Your task to perform on an android device: turn smart compose on in the gmail app Image 0: 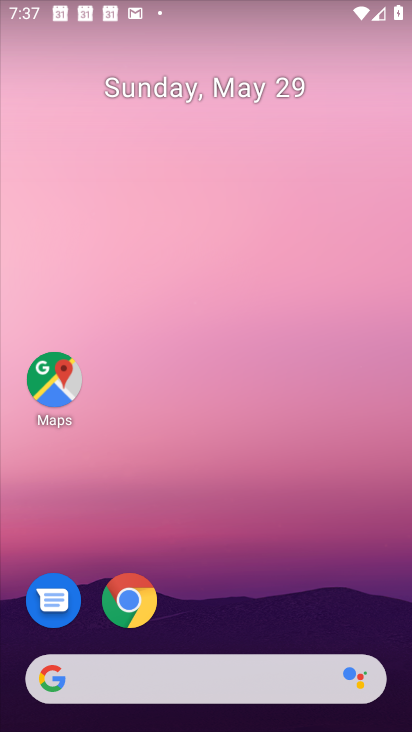
Step 0: drag from (341, 561) to (298, 208)
Your task to perform on an android device: turn smart compose on in the gmail app Image 1: 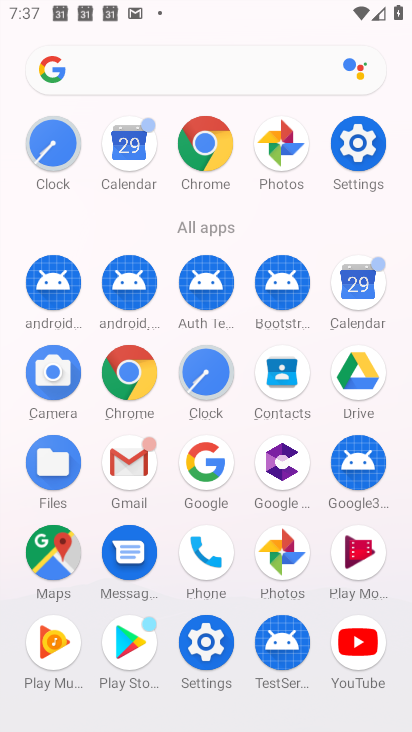
Step 1: click (129, 470)
Your task to perform on an android device: turn smart compose on in the gmail app Image 2: 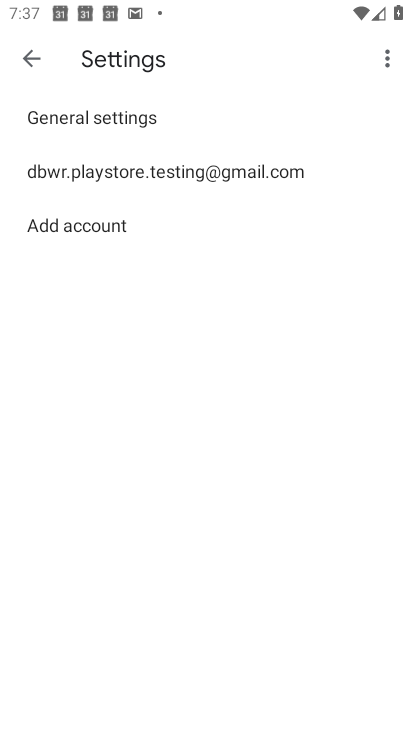
Step 2: click (147, 172)
Your task to perform on an android device: turn smart compose on in the gmail app Image 3: 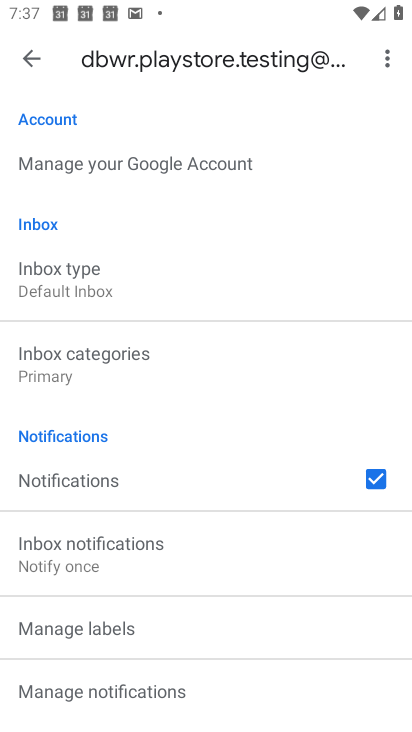
Step 3: task complete